Your task to perform on an android device: Open Maps and search for coffee Image 0: 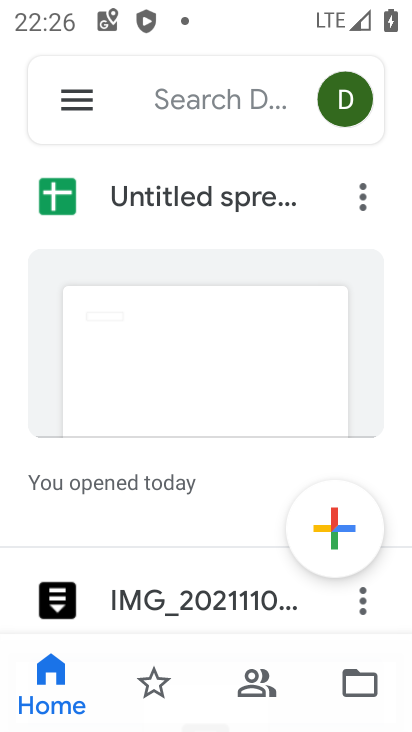
Step 0: press home button
Your task to perform on an android device: Open Maps and search for coffee Image 1: 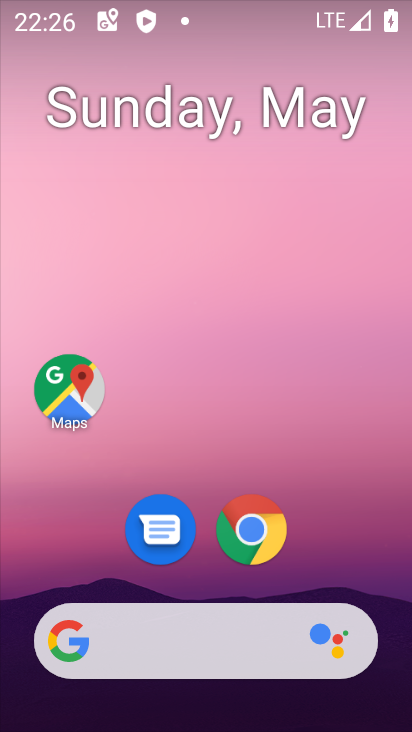
Step 1: click (355, 563)
Your task to perform on an android device: Open Maps and search for coffee Image 2: 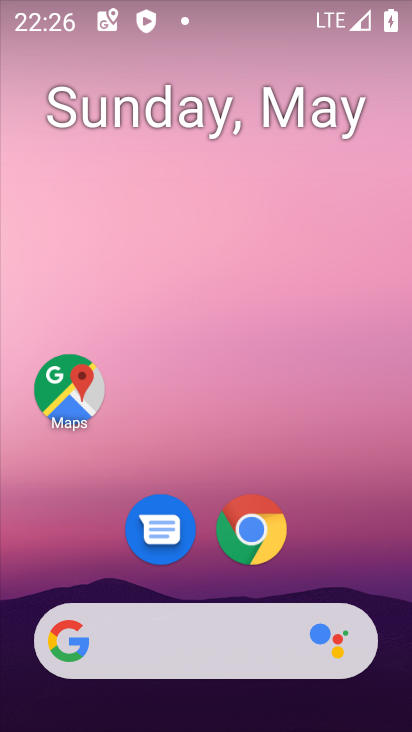
Step 2: click (283, 532)
Your task to perform on an android device: Open Maps and search for coffee Image 3: 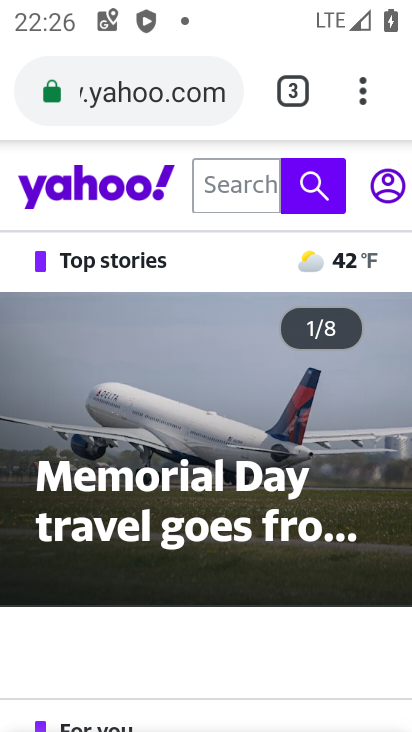
Step 3: press home button
Your task to perform on an android device: Open Maps and search for coffee Image 4: 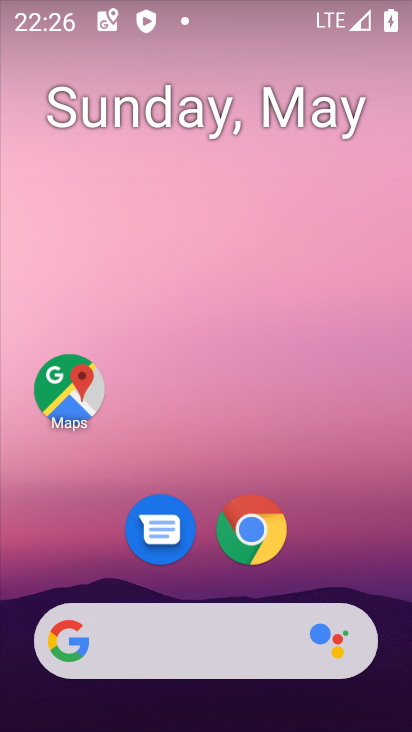
Step 4: click (273, 565)
Your task to perform on an android device: Open Maps and search for coffee Image 5: 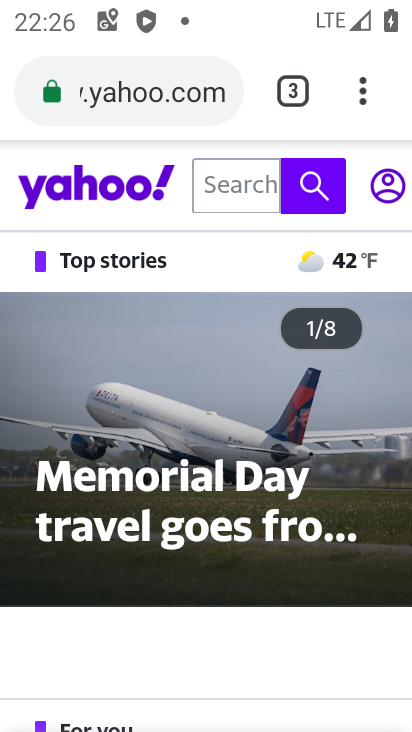
Step 5: press home button
Your task to perform on an android device: Open Maps and search for coffee Image 6: 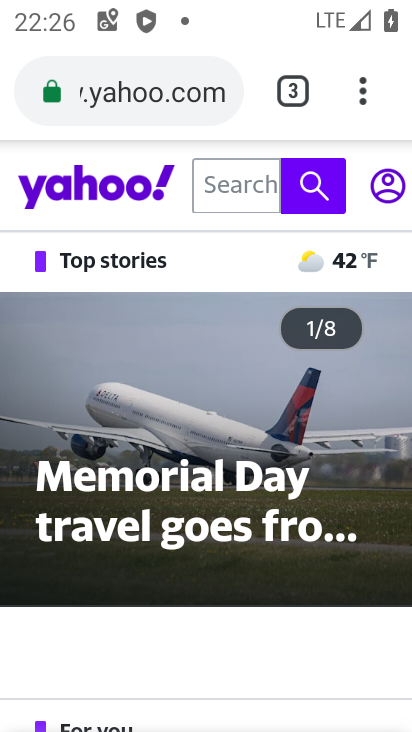
Step 6: press home button
Your task to perform on an android device: Open Maps and search for coffee Image 7: 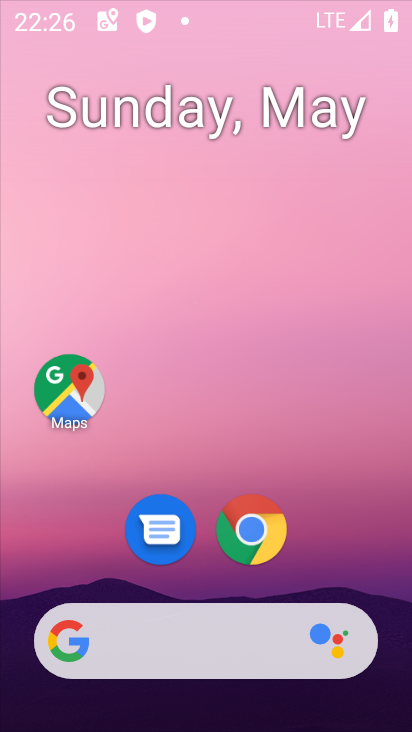
Step 7: press home button
Your task to perform on an android device: Open Maps and search for coffee Image 8: 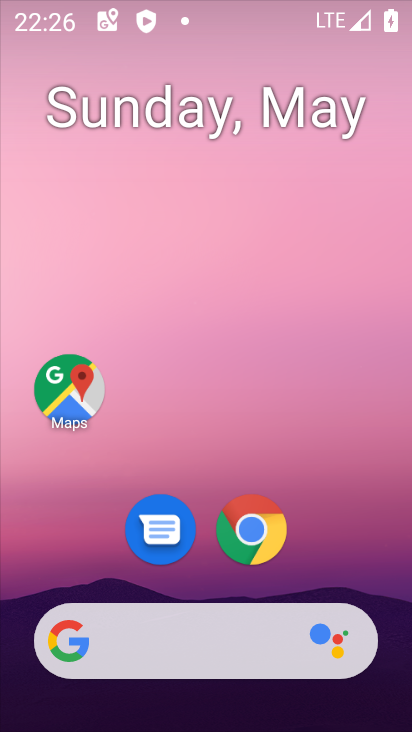
Step 8: press home button
Your task to perform on an android device: Open Maps and search for coffee Image 9: 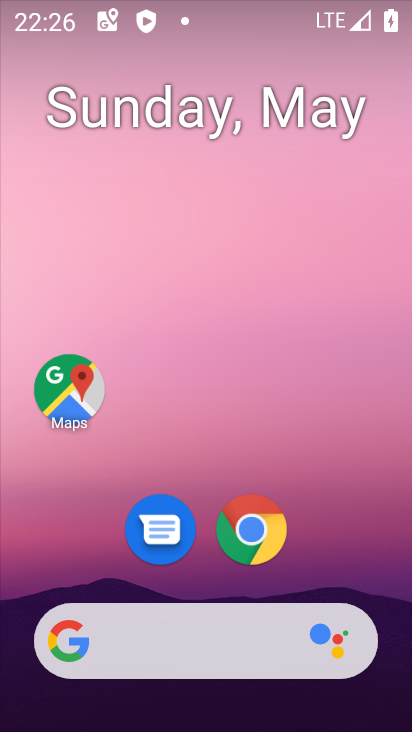
Step 9: press home button
Your task to perform on an android device: Open Maps and search for coffee Image 10: 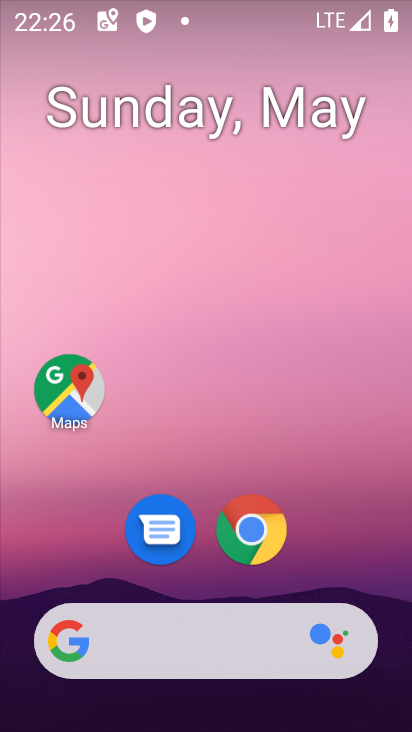
Step 10: click (72, 422)
Your task to perform on an android device: Open Maps and search for coffee Image 11: 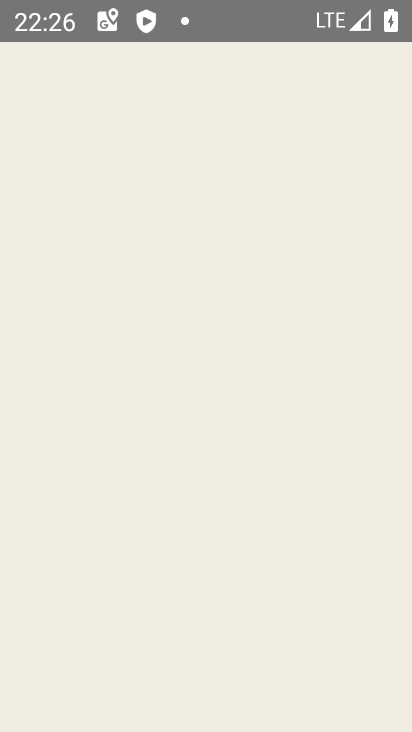
Step 11: task complete